Your task to perform on an android device: add a label to a message in the gmail app Image 0: 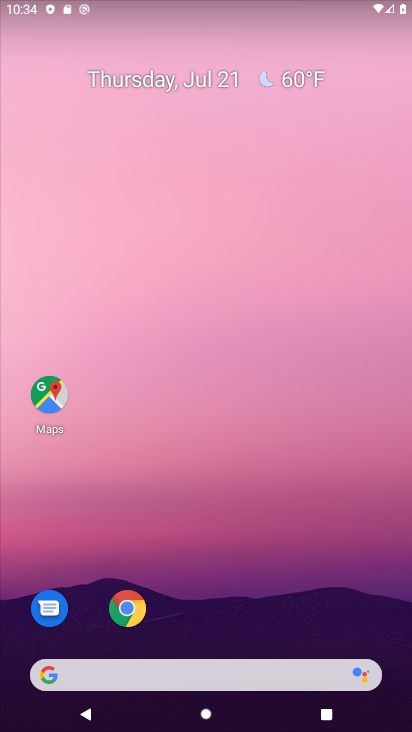
Step 0: drag from (212, 638) to (149, 30)
Your task to perform on an android device: add a label to a message in the gmail app Image 1: 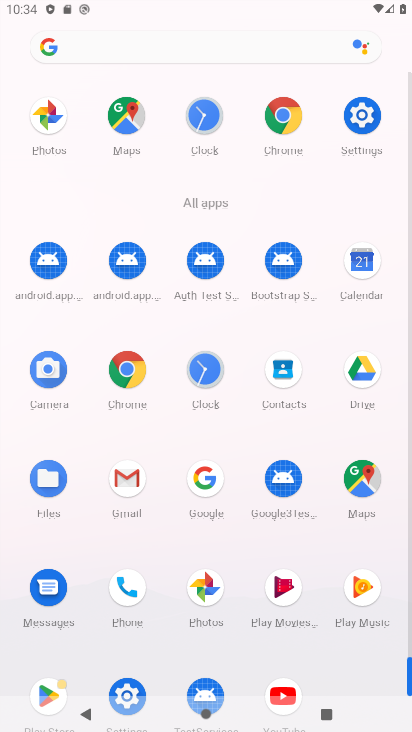
Step 1: click (134, 487)
Your task to perform on an android device: add a label to a message in the gmail app Image 2: 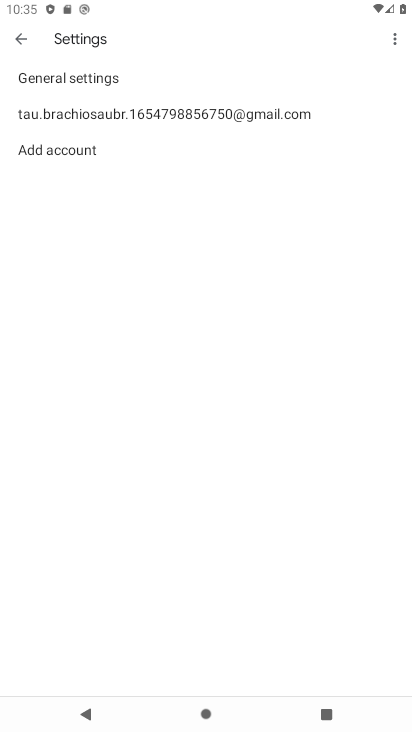
Step 2: click (16, 41)
Your task to perform on an android device: add a label to a message in the gmail app Image 3: 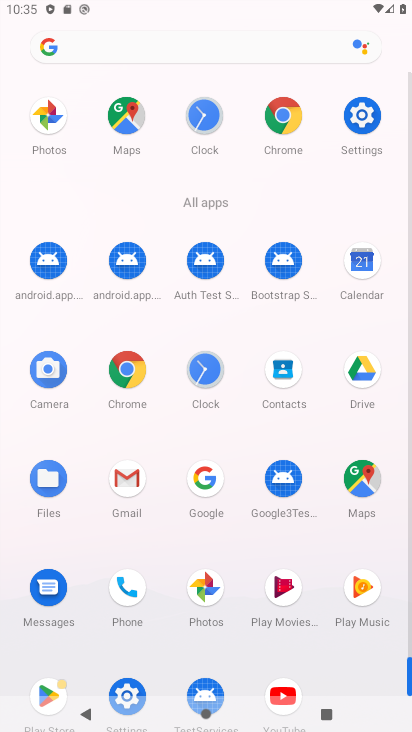
Step 3: click (110, 492)
Your task to perform on an android device: add a label to a message in the gmail app Image 4: 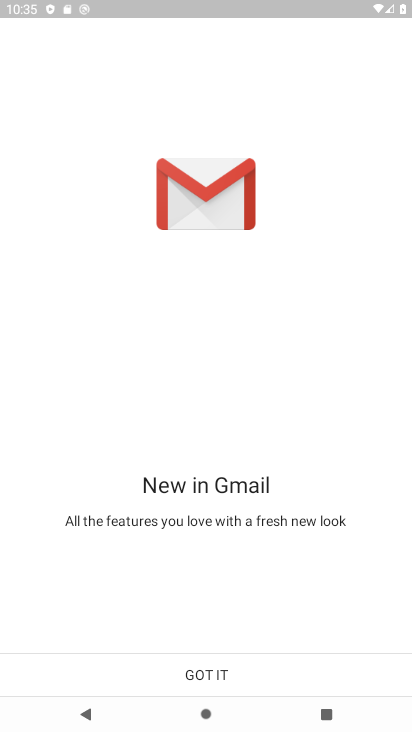
Step 4: click (224, 689)
Your task to perform on an android device: add a label to a message in the gmail app Image 5: 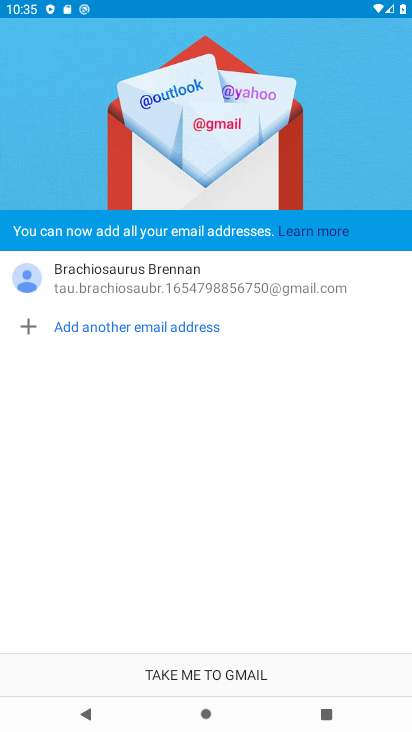
Step 5: click (230, 665)
Your task to perform on an android device: add a label to a message in the gmail app Image 6: 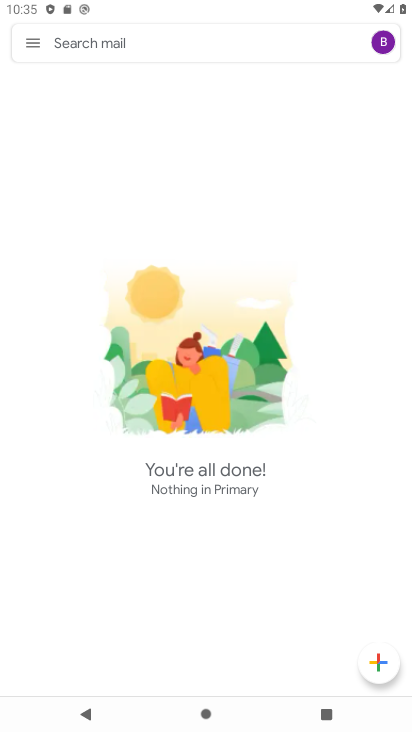
Step 6: task complete